Your task to perform on an android device: Open Chrome and go to settings Image 0: 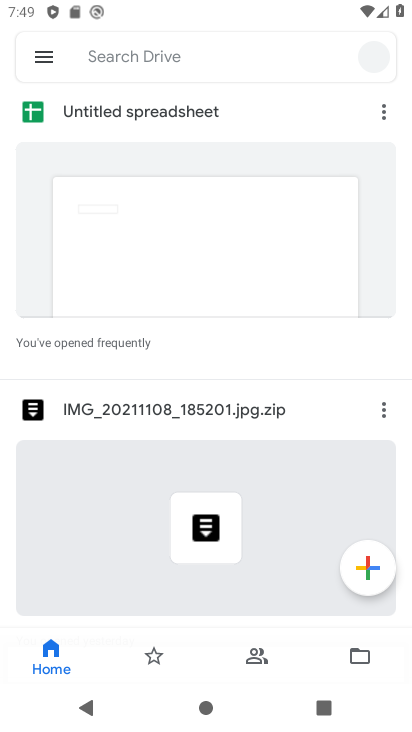
Step 0: press home button
Your task to perform on an android device: Open Chrome and go to settings Image 1: 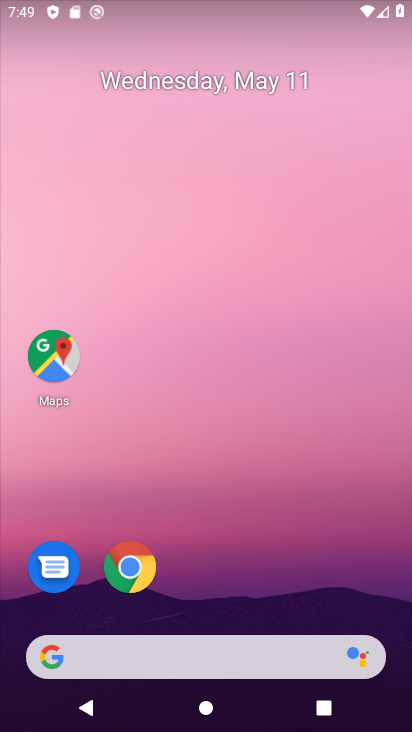
Step 1: click (114, 585)
Your task to perform on an android device: Open Chrome and go to settings Image 2: 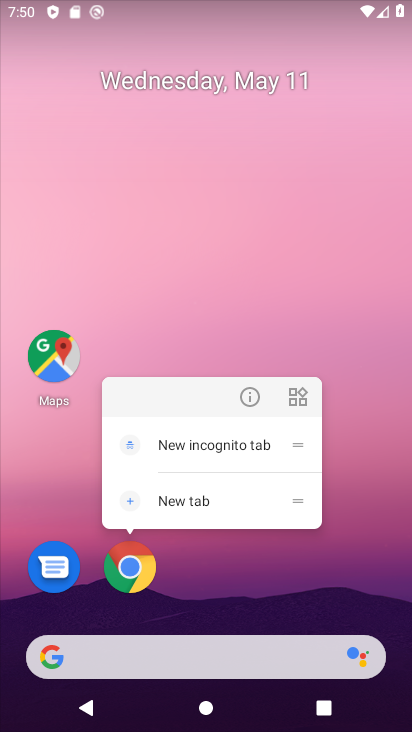
Step 2: click (125, 575)
Your task to perform on an android device: Open Chrome and go to settings Image 3: 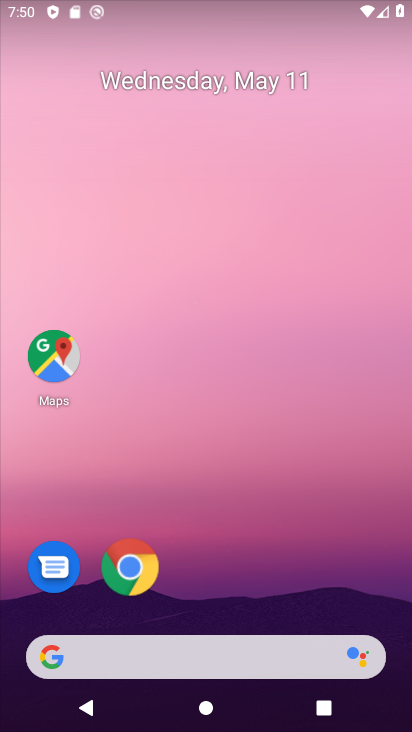
Step 3: click (125, 575)
Your task to perform on an android device: Open Chrome and go to settings Image 4: 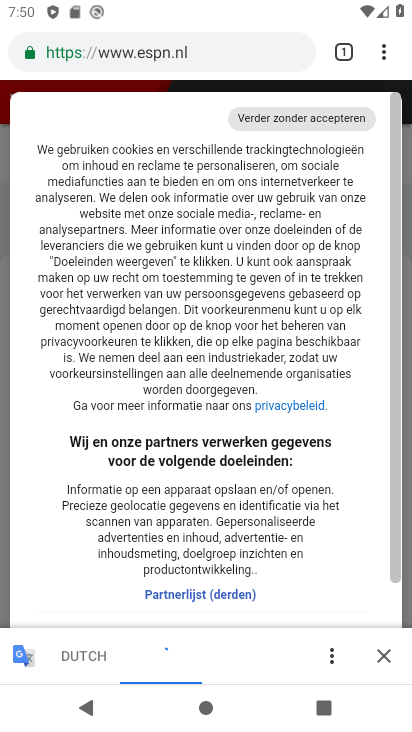
Step 4: click (389, 53)
Your task to perform on an android device: Open Chrome and go to settings Image 5: 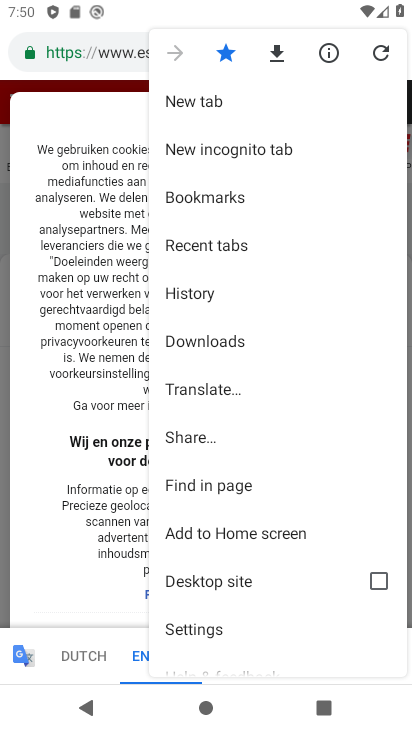
Step 5: click (191, 622)
Your task to perform on an android device: Open Chrome and go to settings Image 6: 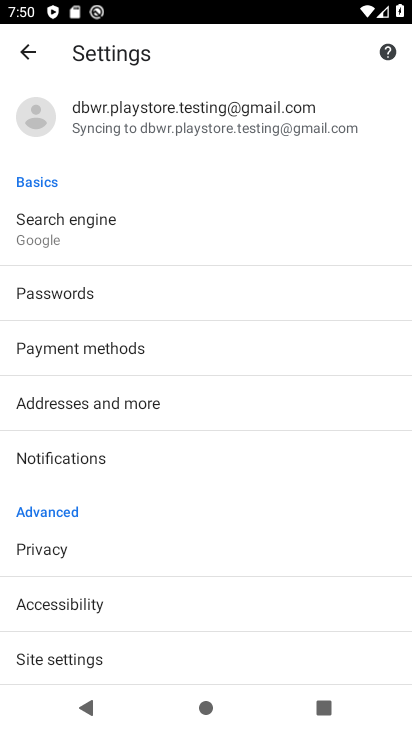
Step 6: task complete